Your task to perform on an android device: refresh tabs in the chrome app Image 0: 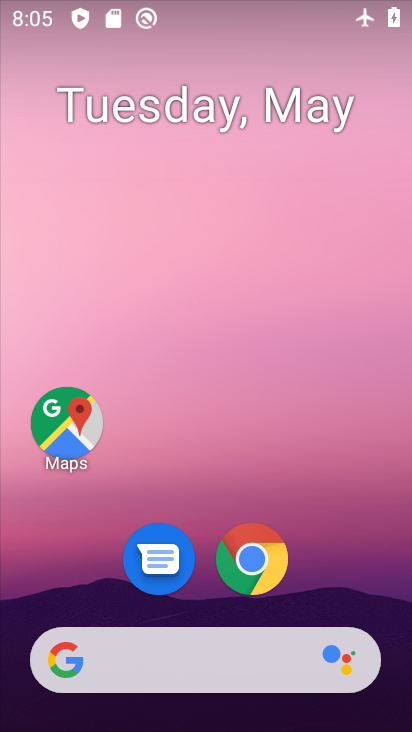
Step 0: click (239, 569)
Your task to perform on an android device: refresh tabs in the chrome app Image 1: 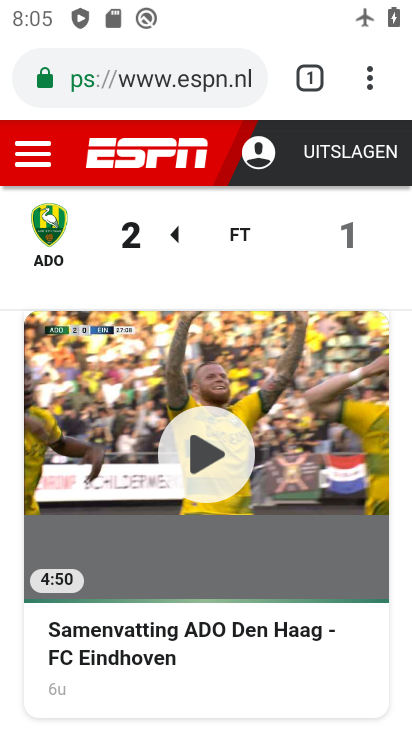
Step 1: click (366, 75)
Your task to perform on an android device: refresh tabs in the chrome app Image 2: 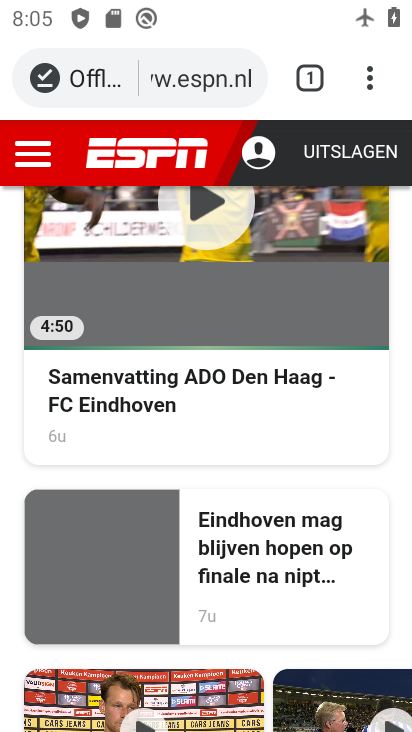
Step 2: task complete